Your task to perform on an android device: find which apps use the phone's location Image 0: 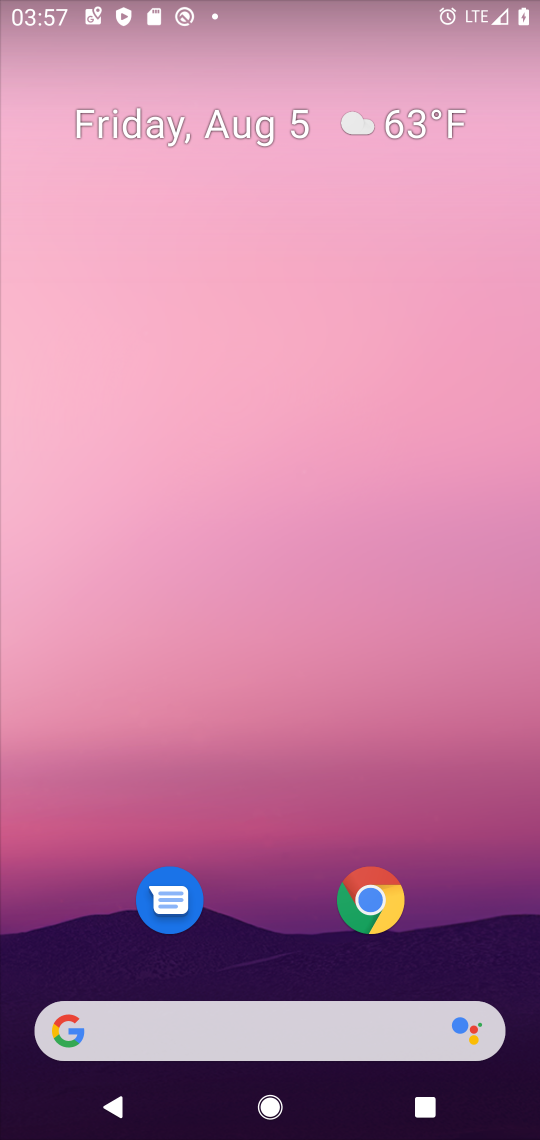
Step 0: drag from (243, 851) to (209, 92)
Your task to perform on an android device: find which apps use the phone's location Image 1: 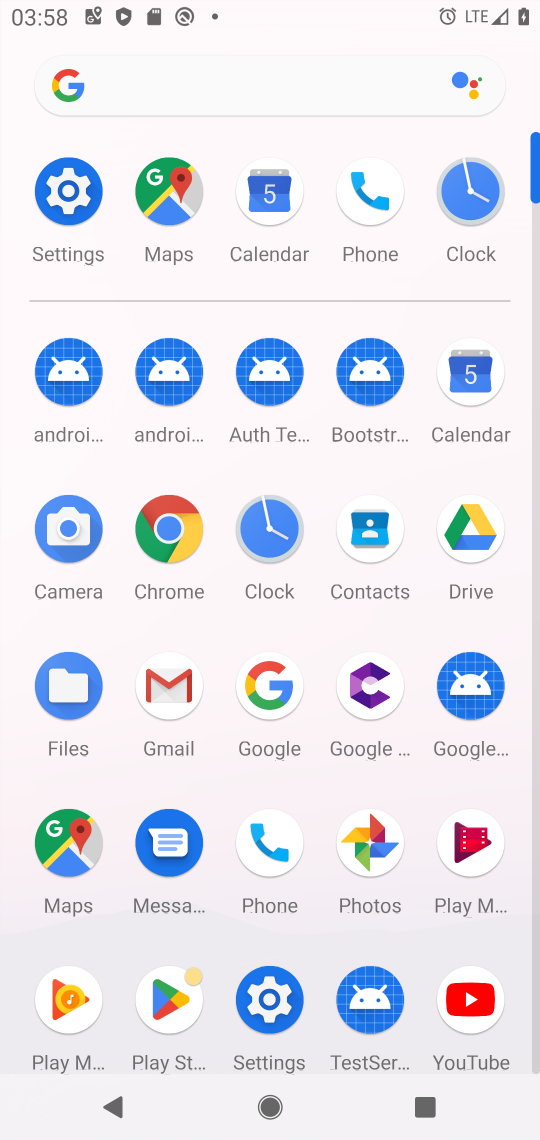
Step 1: click (55, 175)
Your task to perform on an android device: find which apps use the phone's location Image 2: 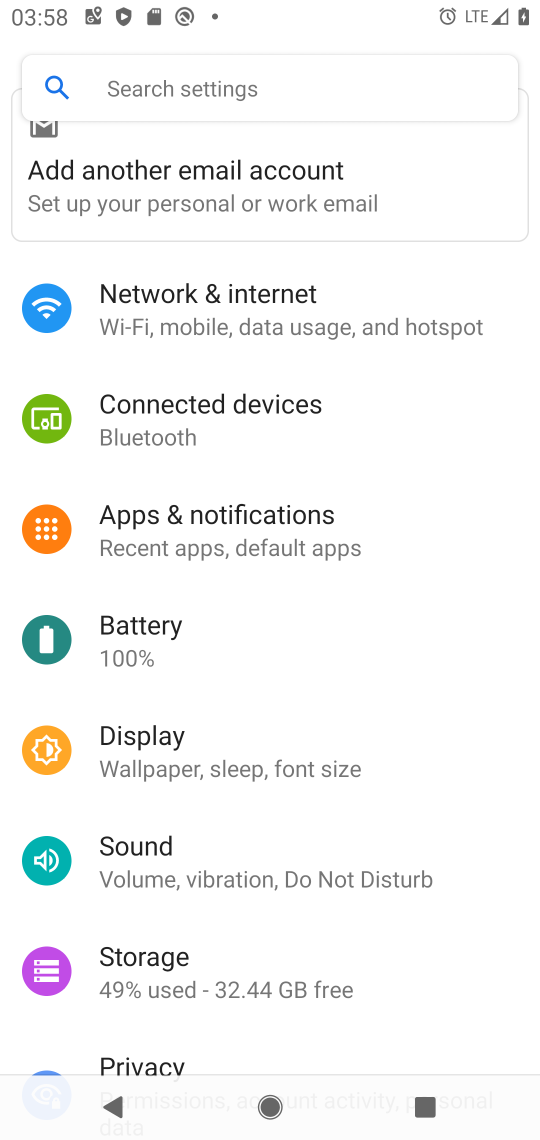
Step 2: drag from (224, 1024) to (387, 258)
Your task to perform on an android device: find which apps use the phone's location Image 3: 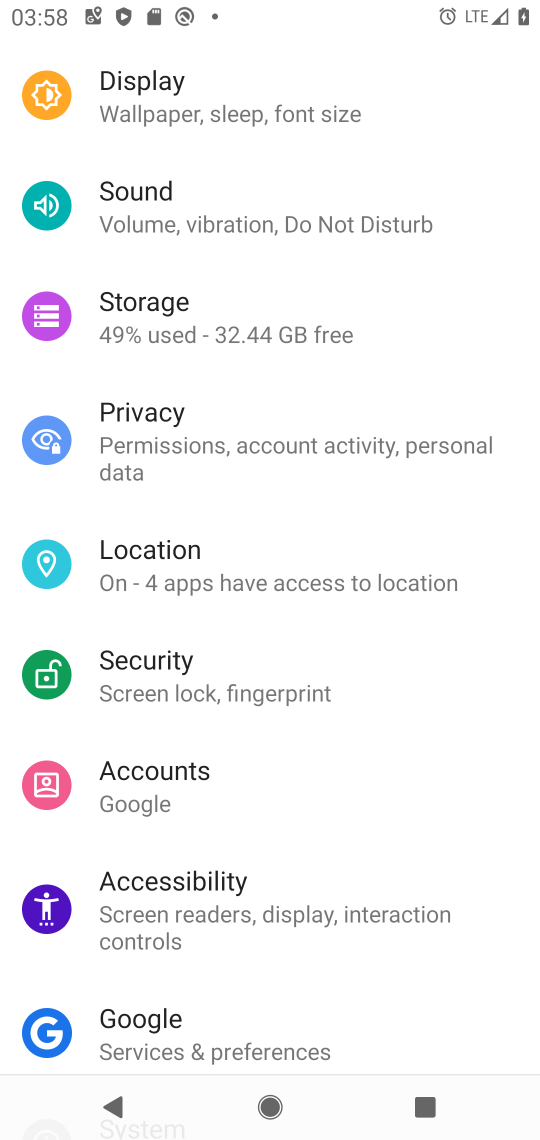
Step 3: click (179, 572)
Your task to perform on an android device: find which apps use the phone's location Image 4: 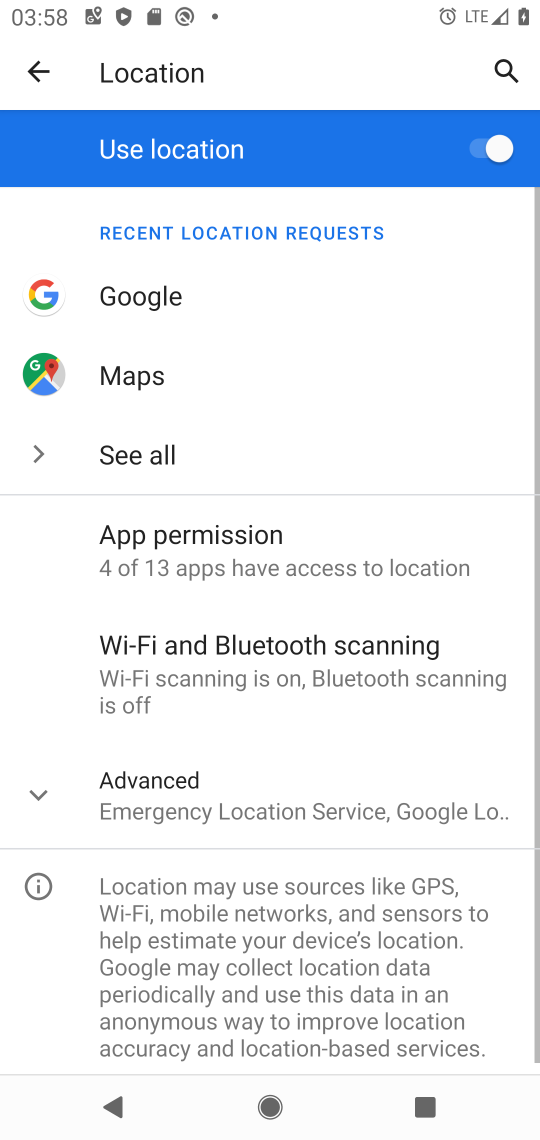
Step 4: click (291, 550)
Your task to perform on an android device: find which apps use the phone's location Image 5: 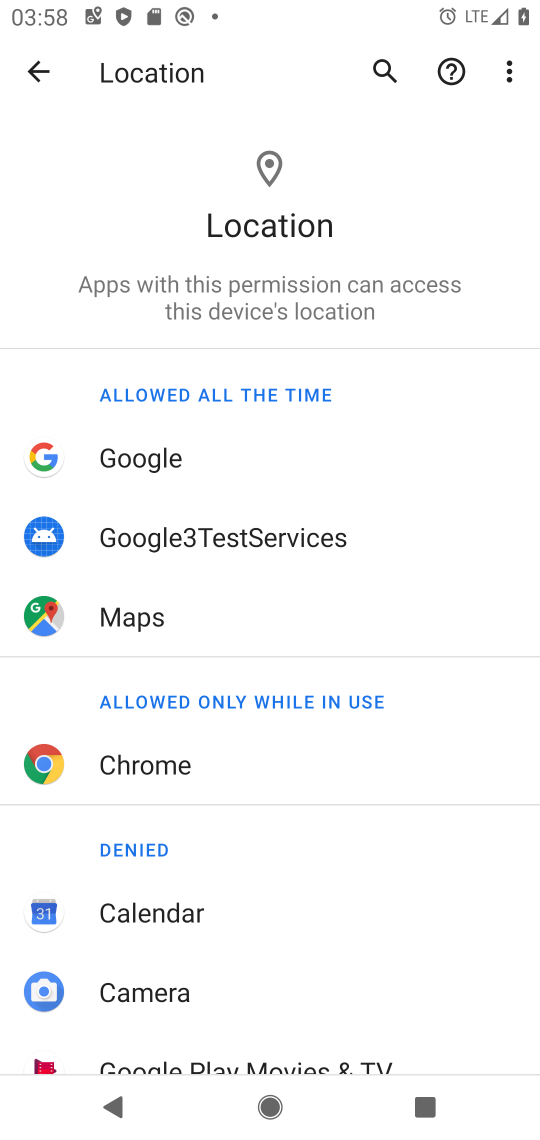
Step 5: task complete